Your task to perform on an android device: turn off smart reply in the gmail app Image 0: 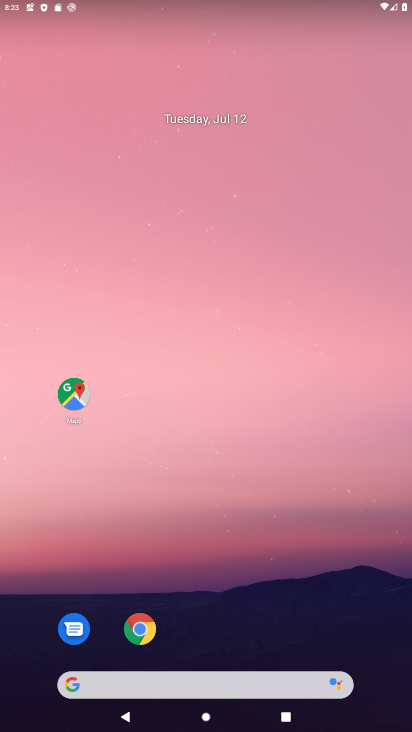
Step 0: drag from (298, 518) to (295, 2)
Your task to perform on an android device: turn off smart reply in the gmail app Image 1: 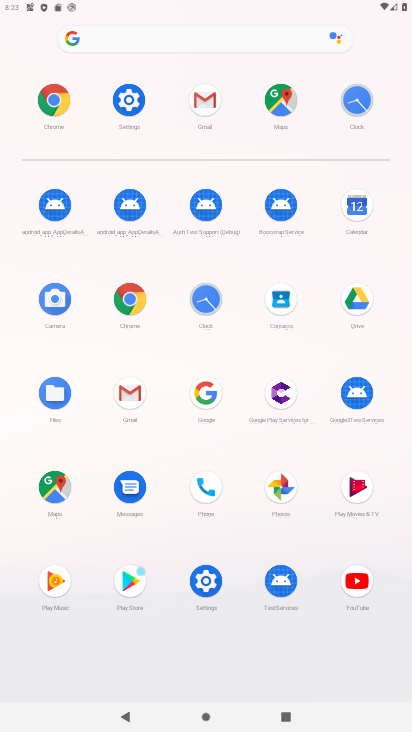
Step 1: click (133, 394)
Your task to perform on an android device: turn off smart reply in the gmail app Image 2: 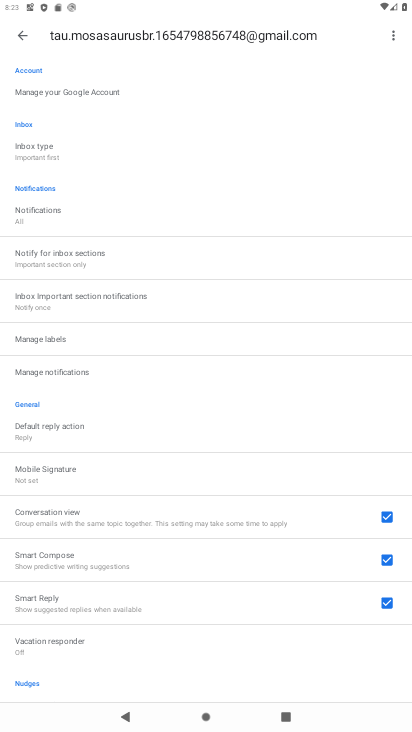
Step 2: click (389, 603)
Your task to perform on an android device: turn off smart reply in the gmail app Image 3: 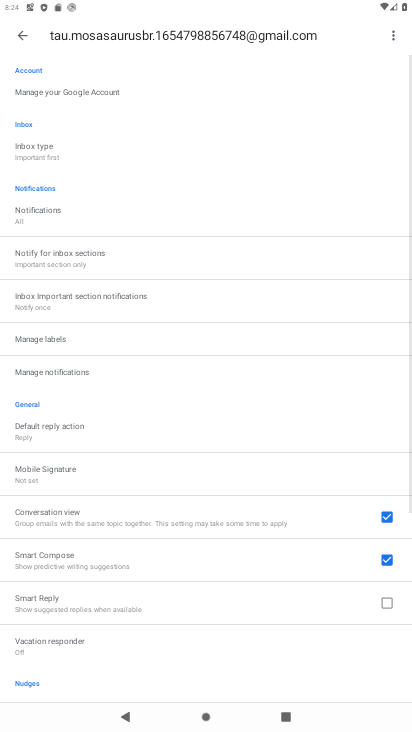
Step 3: task complete